Your task to perform on an android device: empty trash in the gmail app Image 0: 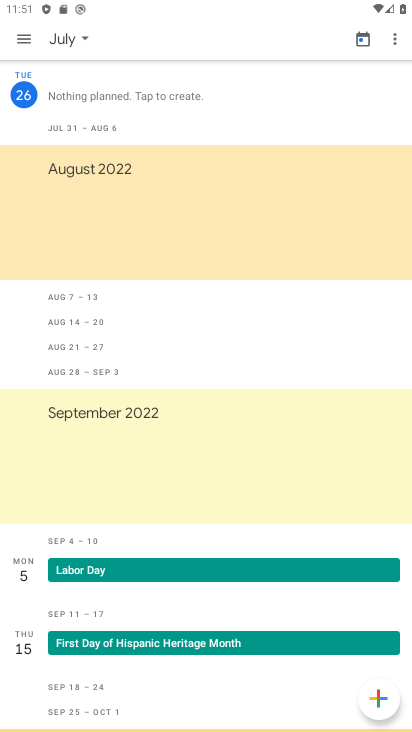
Step 0: press back button
Your task to perform on an android device: empty trash in the gmail app Image 1: 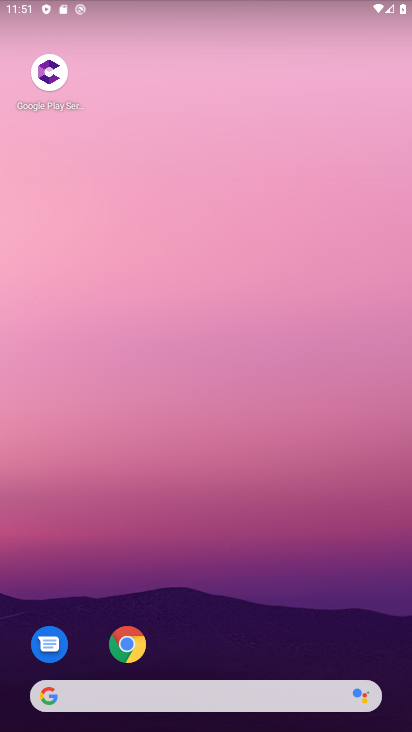
Step 1: drag from (235, 327) to (215, 0)
Your task to perform on an android device: empty trash in the gmail app Image 2: 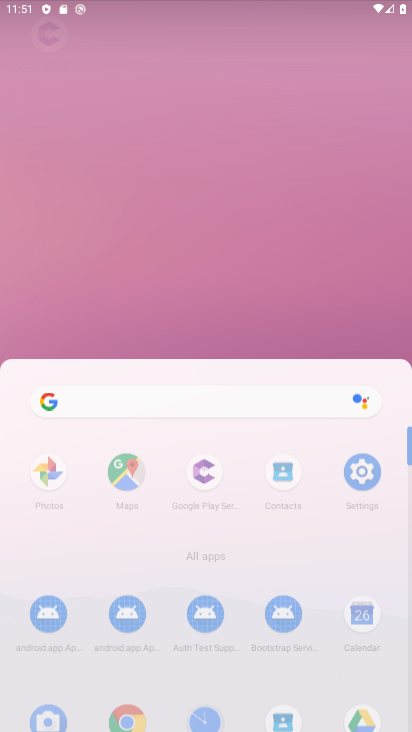
Step 2: drag from (194, 481) to (144, 11)
Your task to perform on an android device: empty trash in the gmail app Image 3: 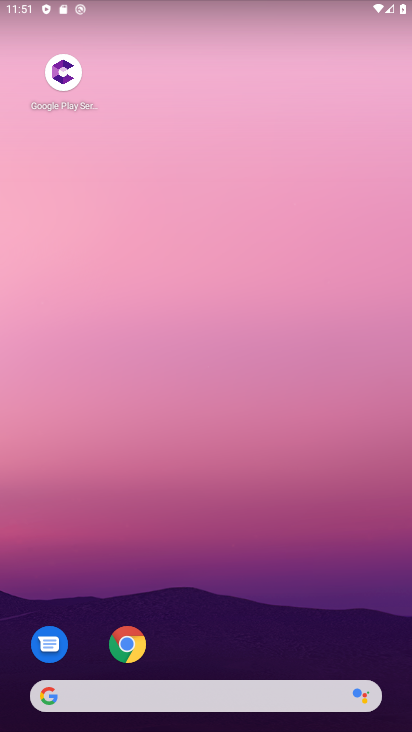
Step 3: drag from (166, 504) to (188, 119)
Your task to perform on an android device: empty trash in the gmail app Image 4: 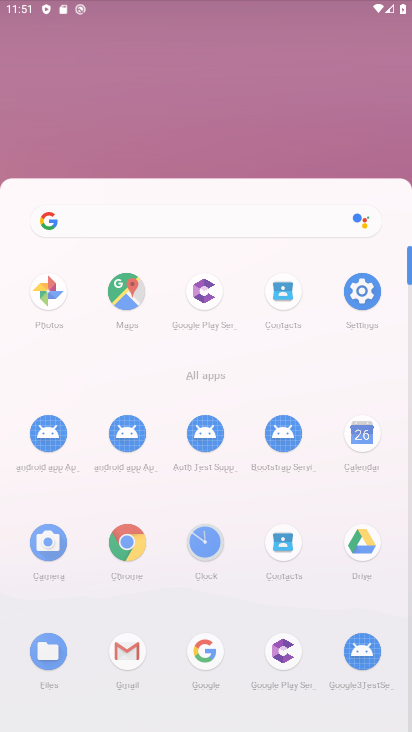
Step 4: drag from (174, 258) to (167, 15)
Your task to perform on an android device: empty trash in the gmail app Image 5: 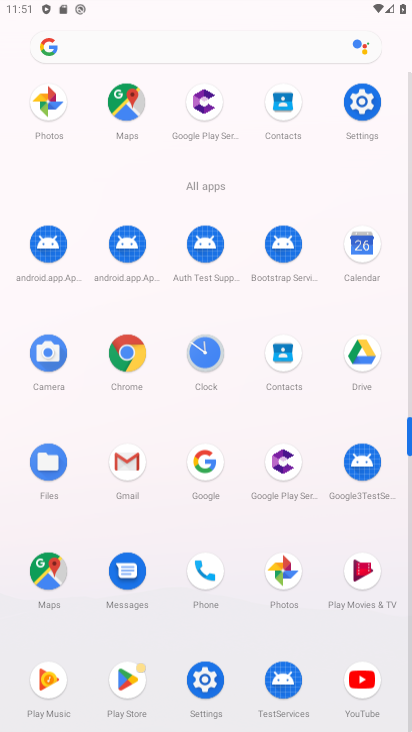
Step 5: drag from (194, 271) to (188, 70)
Your task to perform on an android device: empty trash in the gmail app Image 6: 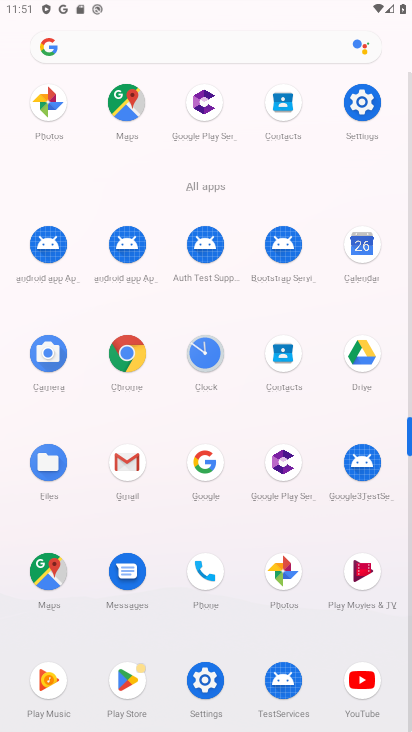
Step 6: click (132, 462)
Your task to perform on an android device: empty trash in the gmail app Image 7: 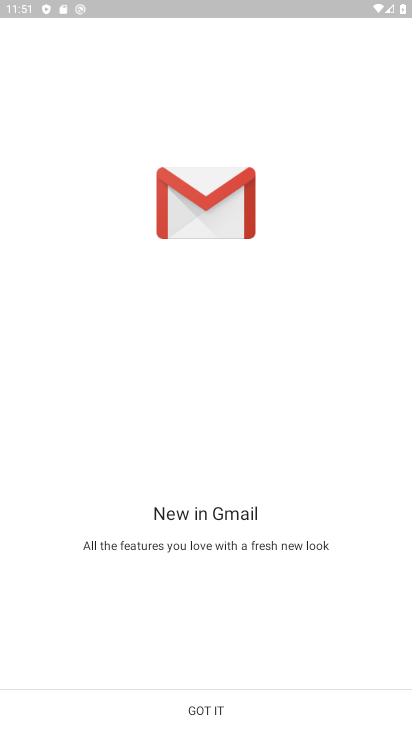
Step 7: click (187, 705)
Your task to perform on an android device: empty trash in the gmail app Image 8: 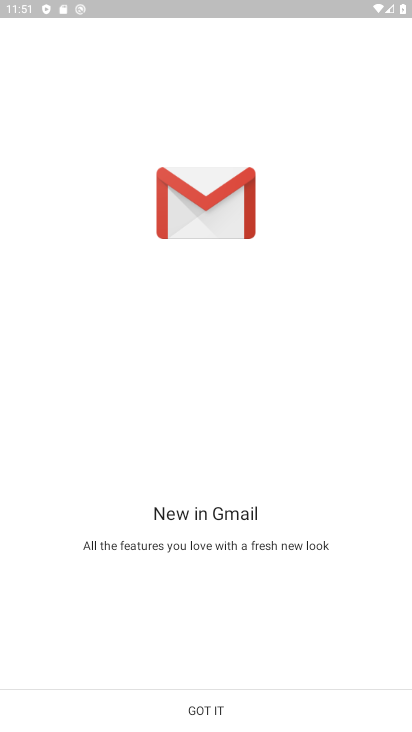
Step 8: click (194, 704)
Your task to perform on an android device: empty trash in the gmail app Image 9: 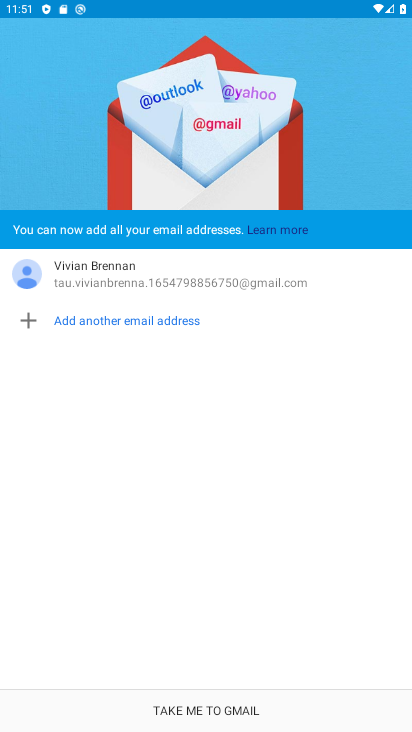
Step 9: click (202, 709)
Your task to perform on an android device: empty trash in the gmail app Image 10: 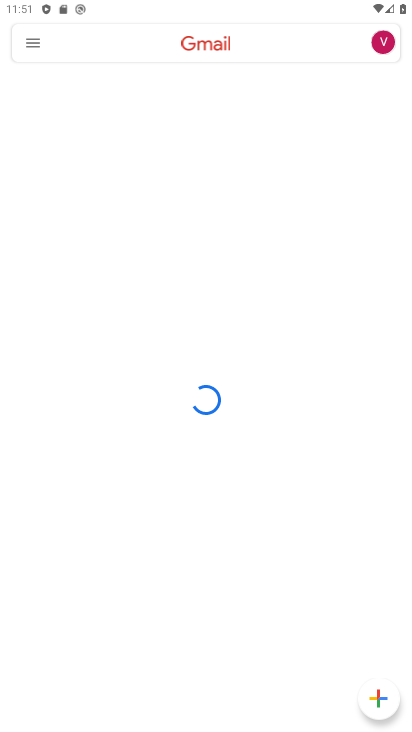
Step 10: click (34, 42)
Your task to perform on an android device: empty trash in the gmail app Image 11: 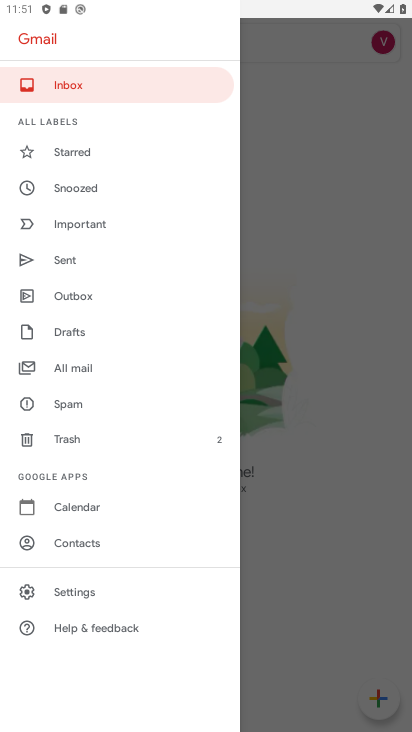
Step 11: click (69, 436)
Your task to perform on an android device: empty trash in the gmail app Image 12: 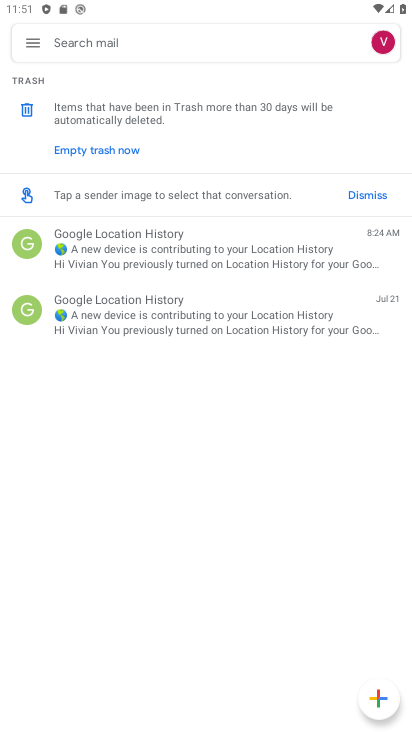
Step 12: click (110, 147)
Your task to perform on an android device: empty trash in the gmail app Image 13: 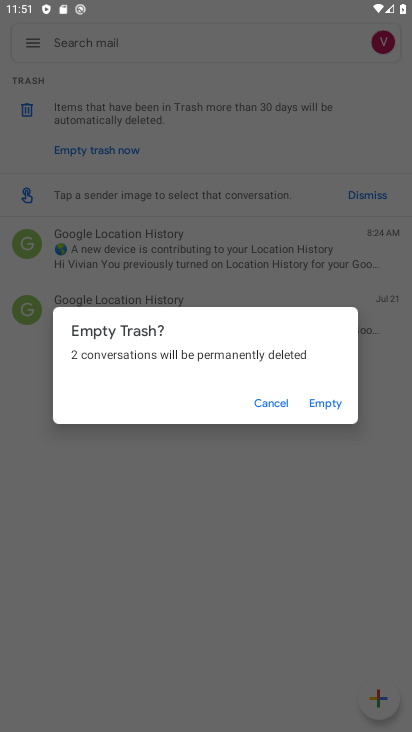
Step 13: click (322, 402)
Your task to perform on an android device: empty trash in the gmail app Image 14: 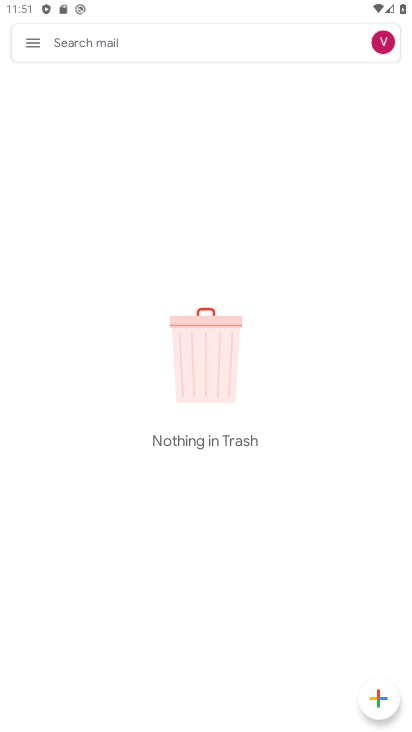
Step 14: task complete